Your task to perform on an android device: Search for custom wallets on etsy. Image 0: 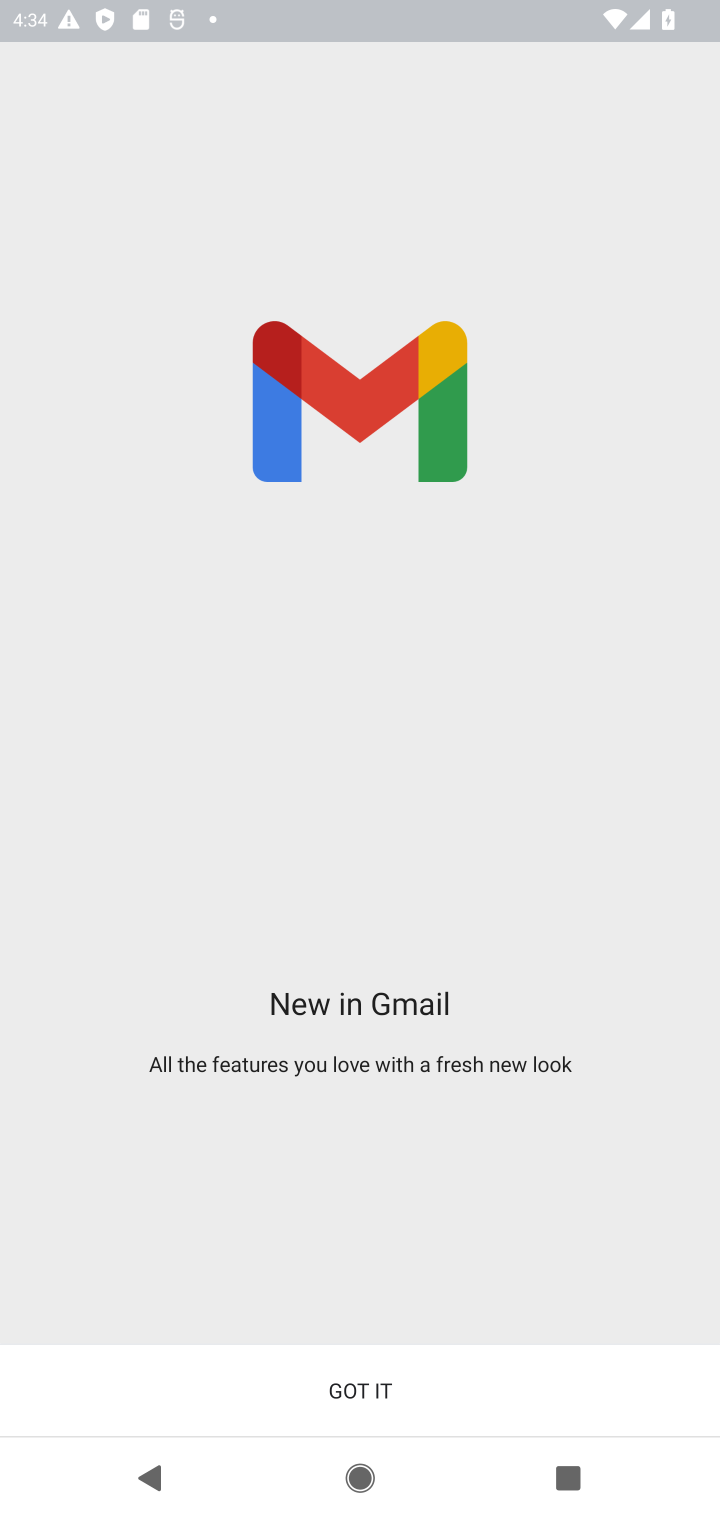
Step 0: press home button
Your task to perform on an android device: Search for custom wallets on etsy. Image 1: 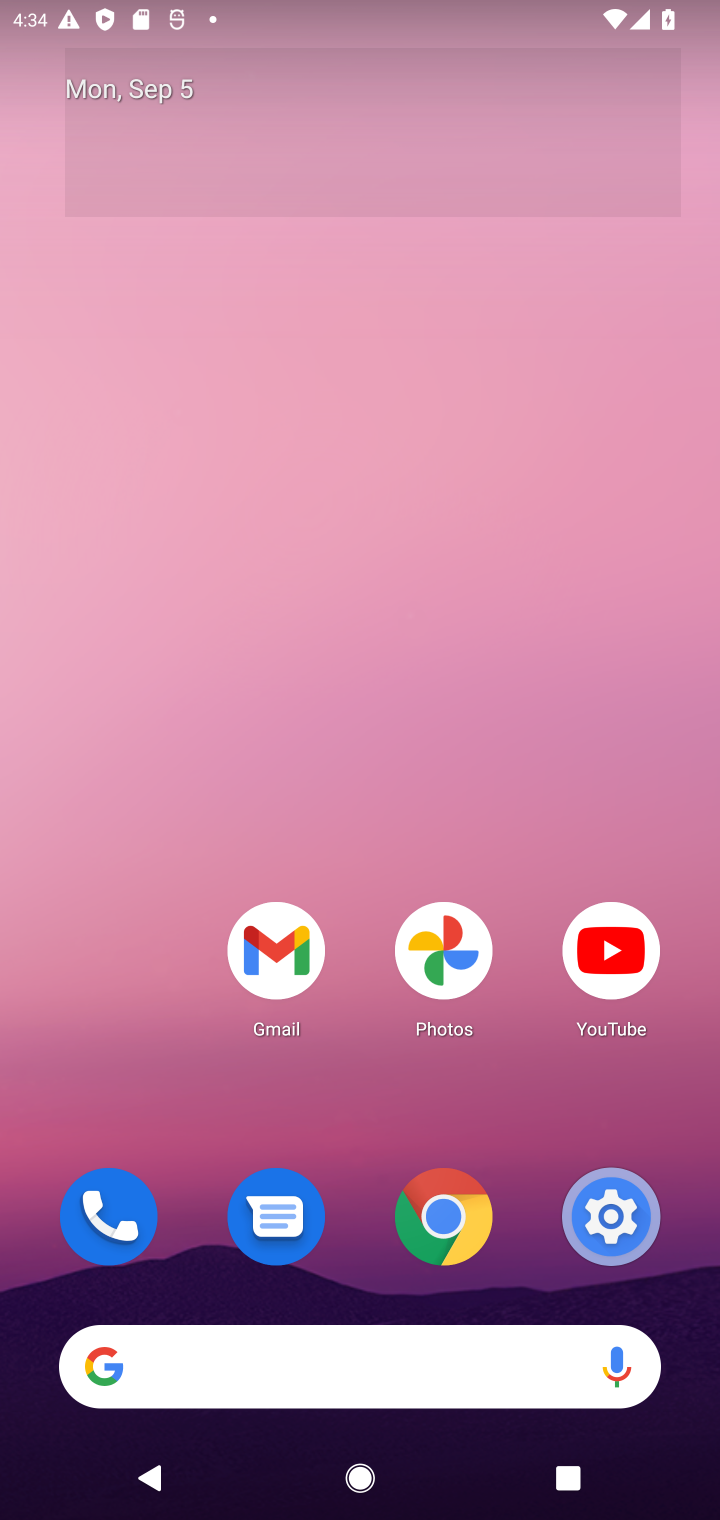
Step 1: click (90, 1364)
Your task to perform on an android device: Search for custom wallets on etsy. Image 2: 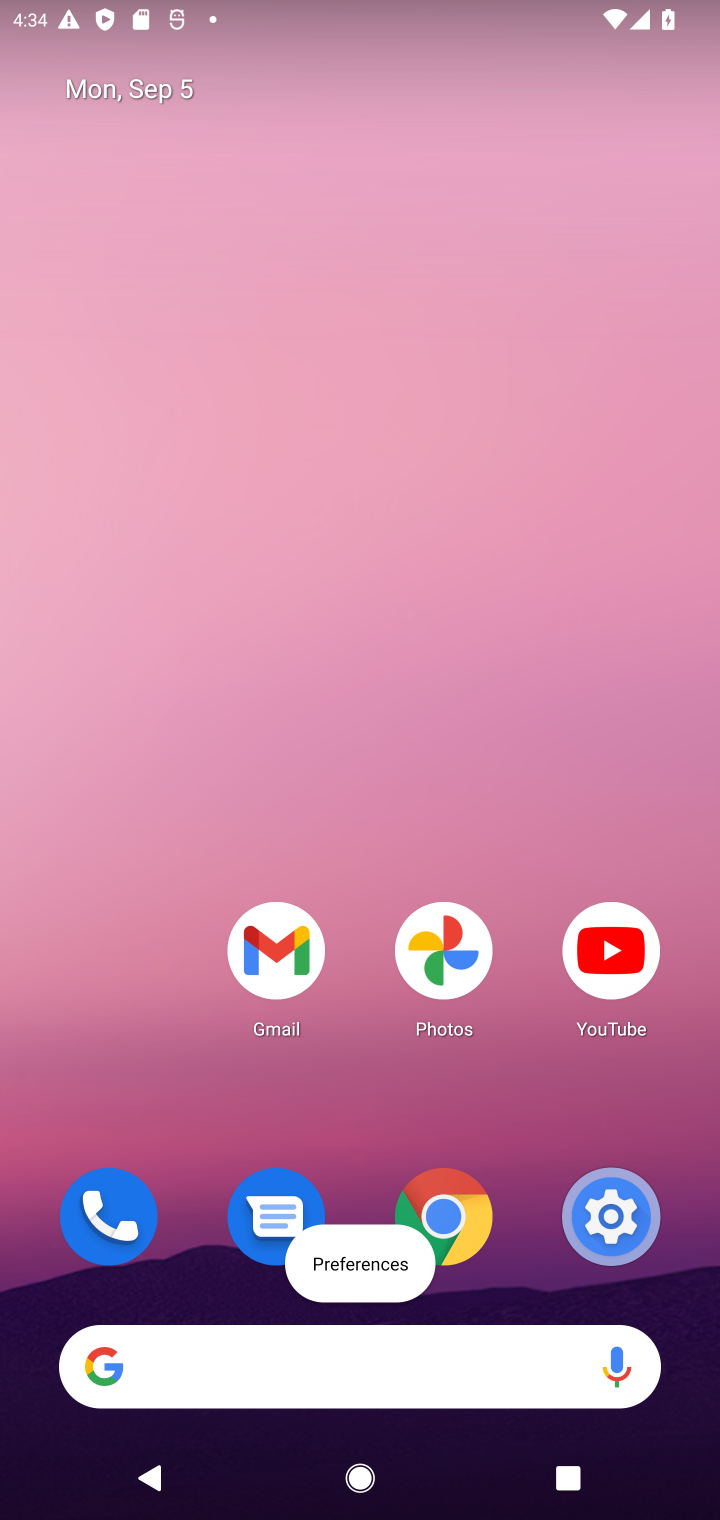
Step 2: click (99, 1350)
Your task to perform on an android device: Search for custom wallets on etsy. Image 3: 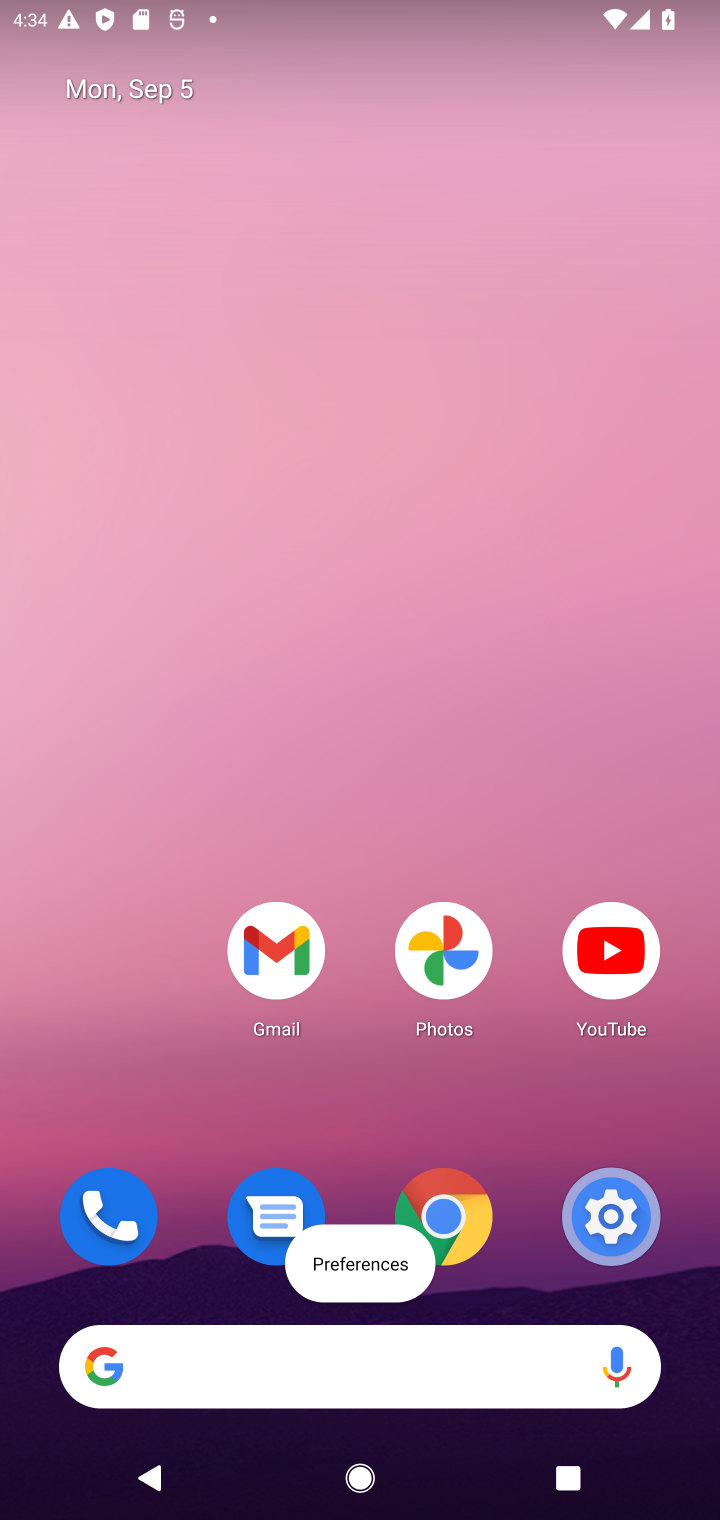
Step 3: click (108, 1378)
Your task to perform on an android device: Search for custom wallets on etsy. Image 4: 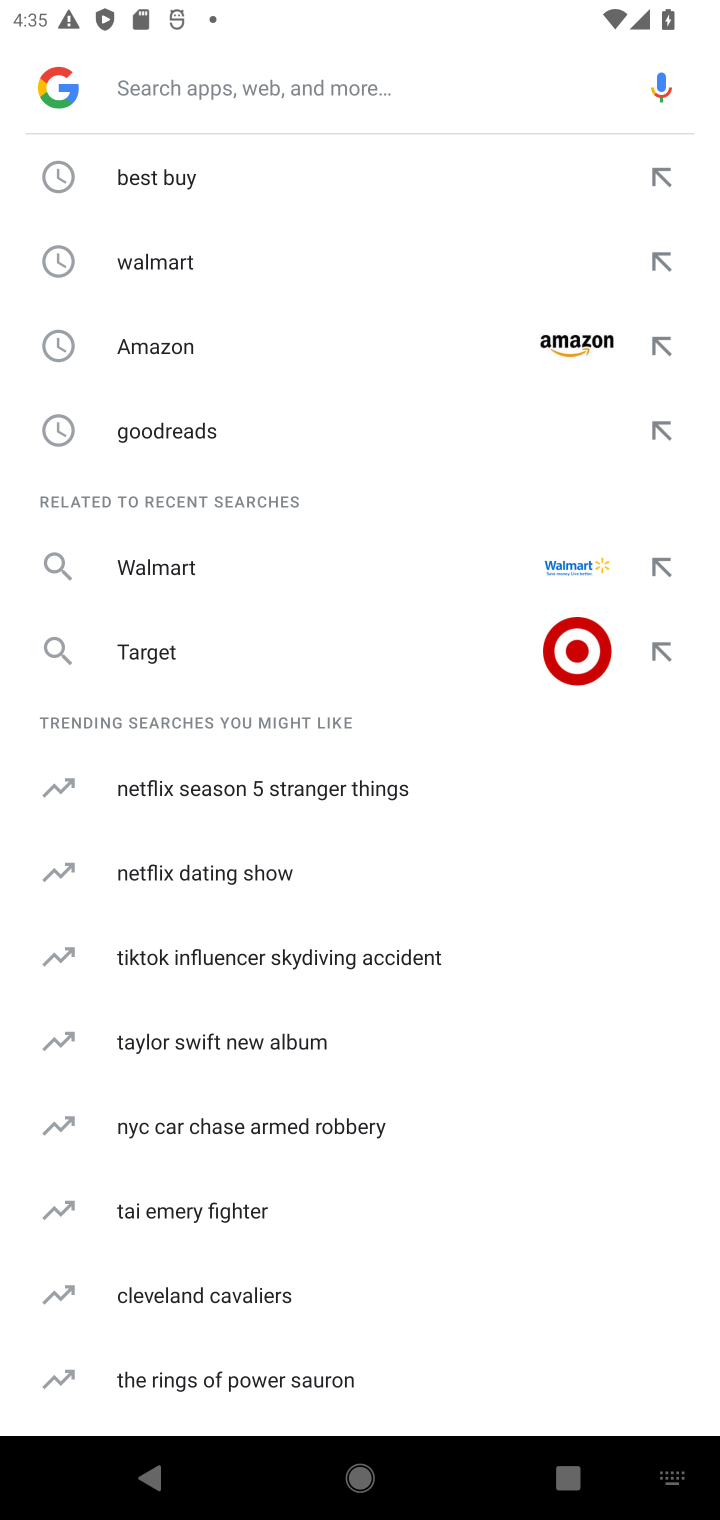
Step 4: type "etsy"
Your task to perform on an android device: Search for custom wallets on etsy. Image 5: 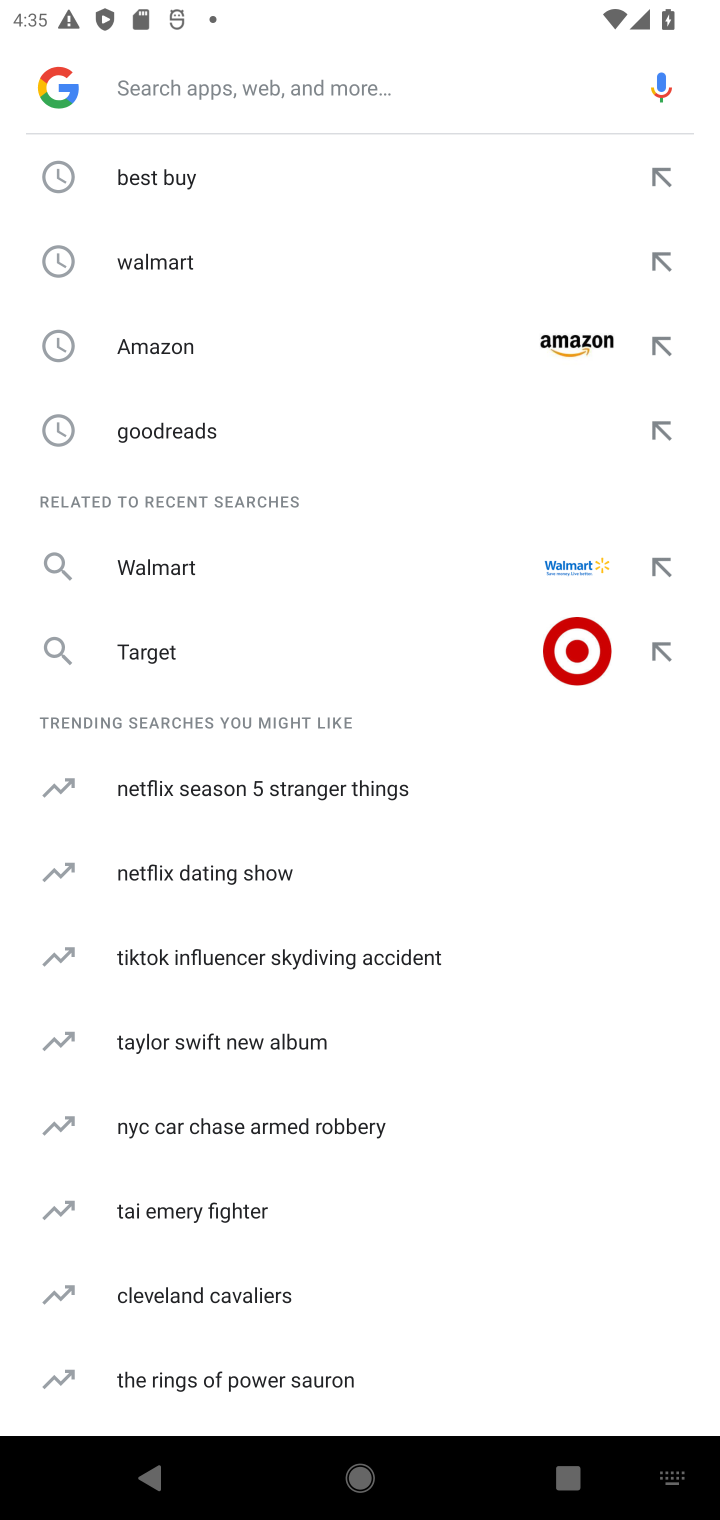
Step 5: click (163, 91)
Your task to perform on an android device: Search for custom wallets on etsy. Image 6: 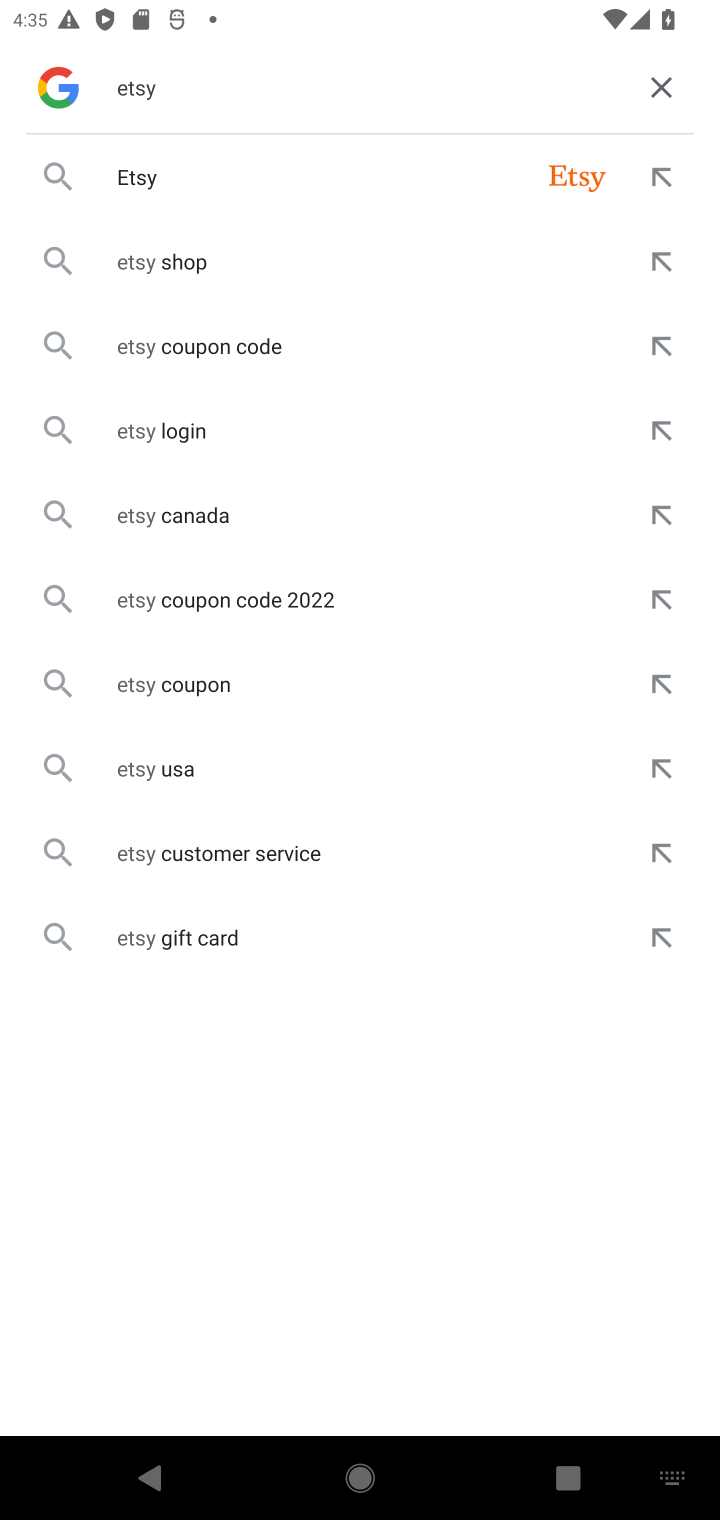
Step 6: press enter
Your task to perform on an android device: Search for custom wallets on etsy. Image 7: 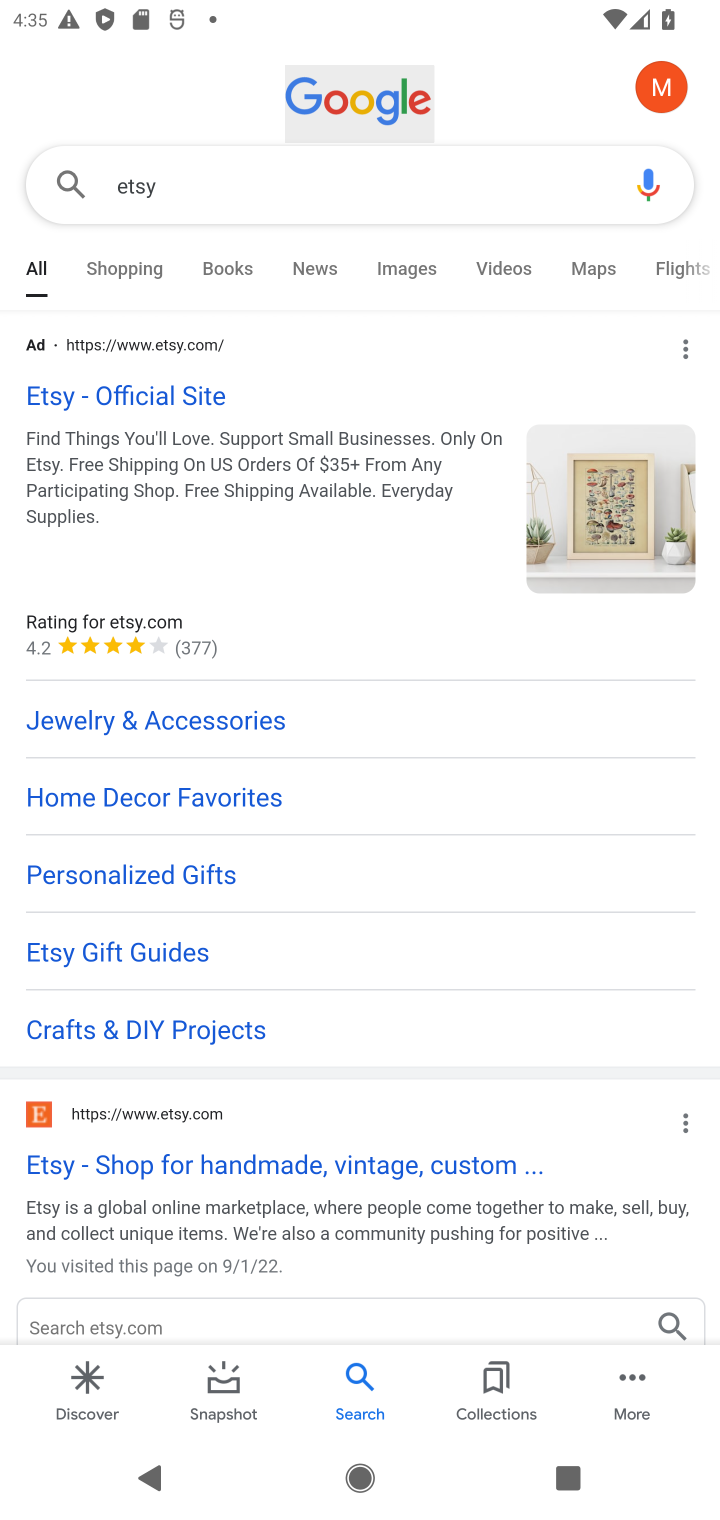
Step 7: click (171, 1115)
Your task to perform on an android device: Search for custom wallets on etsy. Image 8: 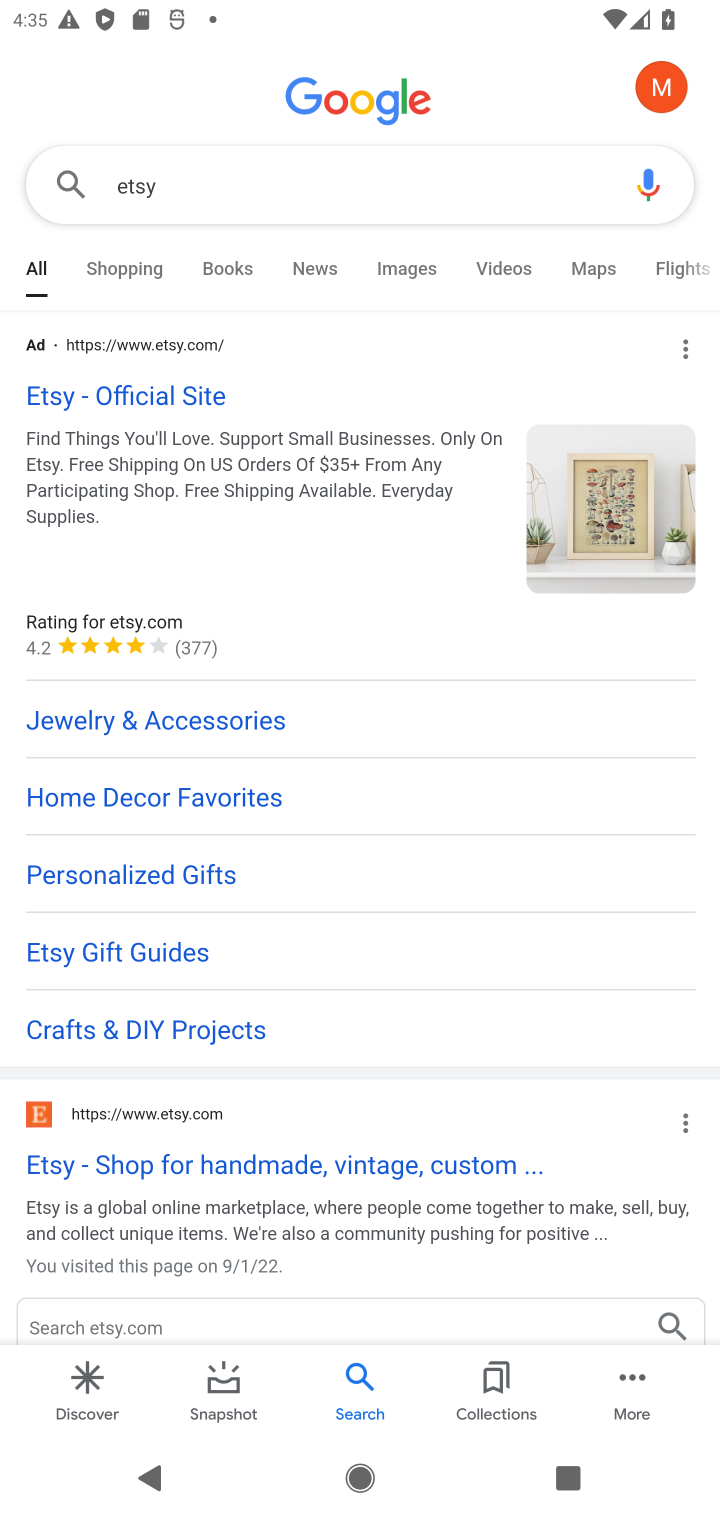
Step 8: click (223, 1153)
Your task to perform on an android device: Search for custom wallets on etsy. Image 9: 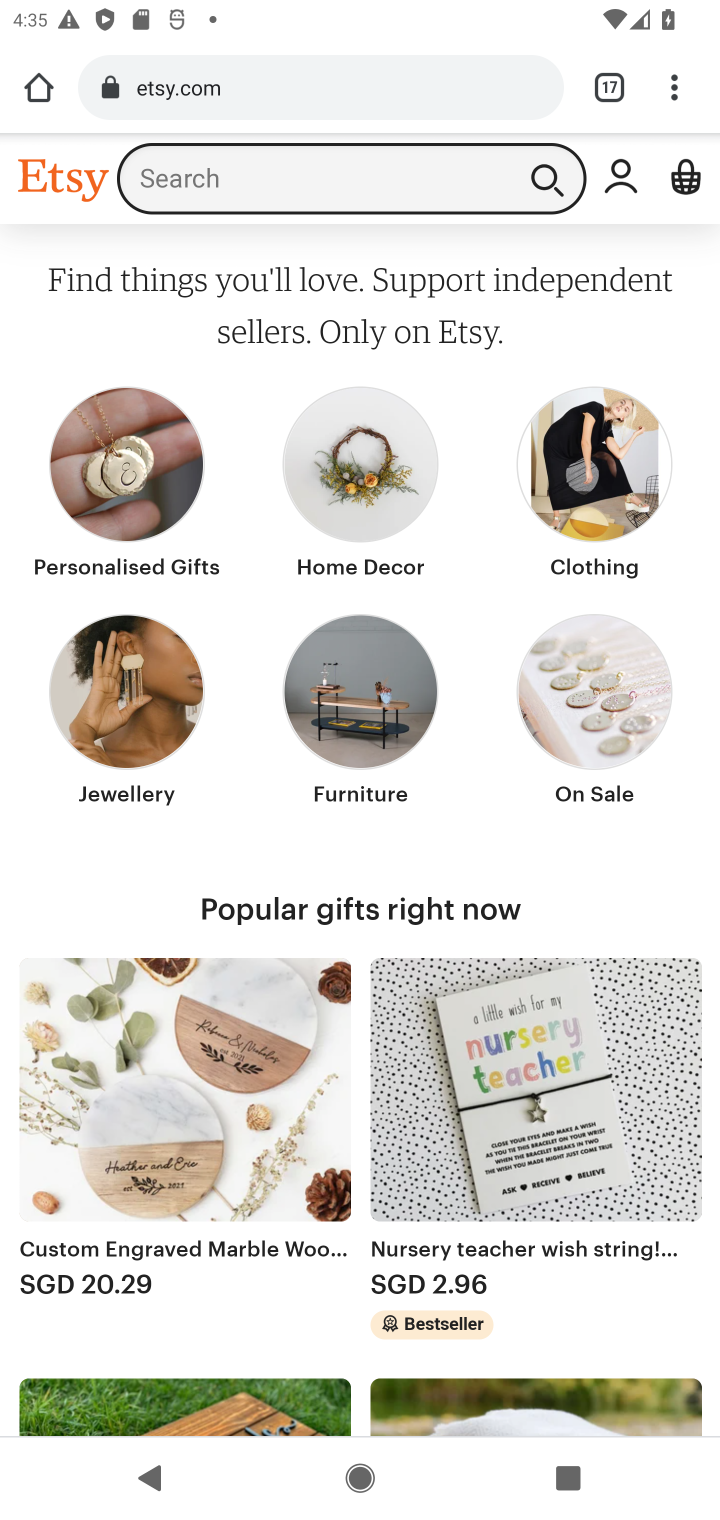
Step 9: click (202, 174)
Your task to perform on an android device: Search for custom wallets on etsy. Image 10: 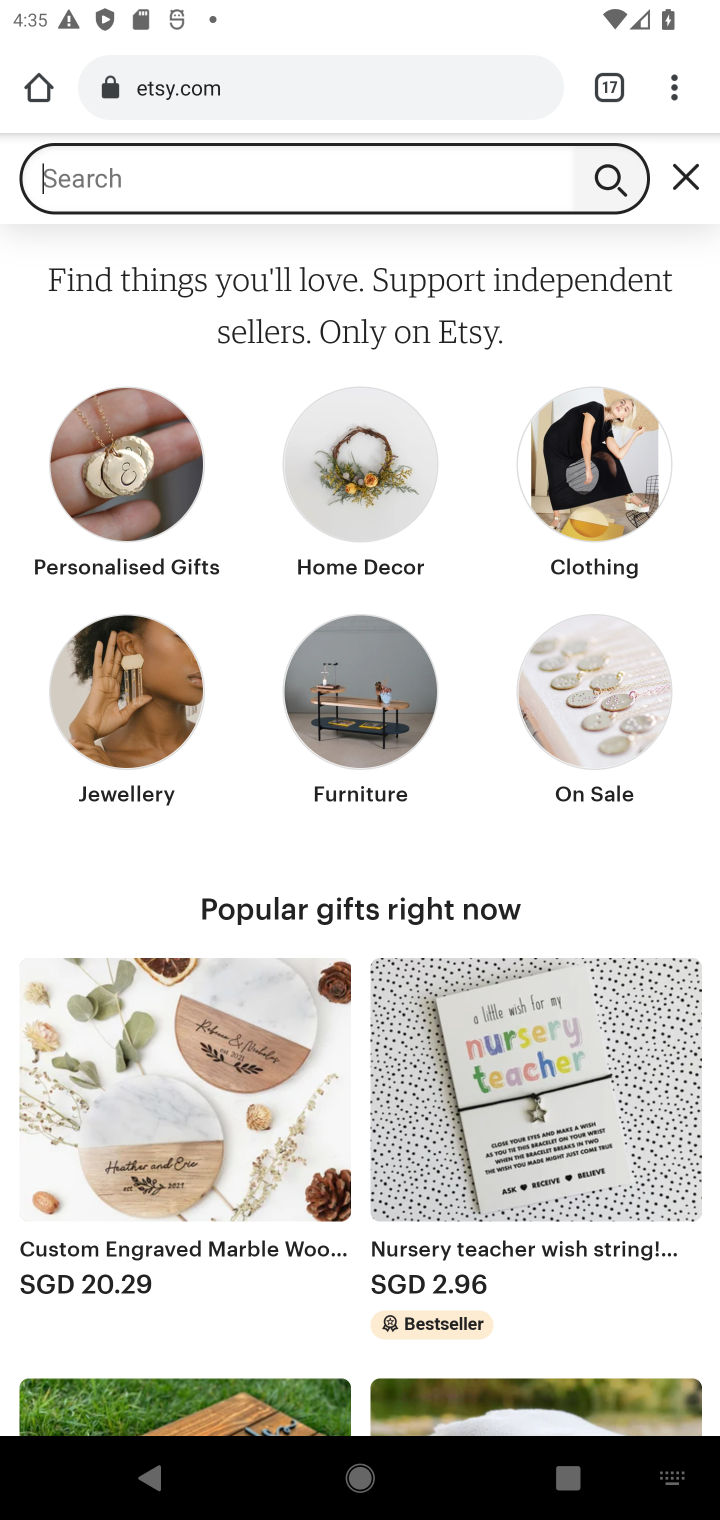
Step 10: type "custom wallets"
Your task to perform on an android device: Search for custom wallets on etsy. Image 11: 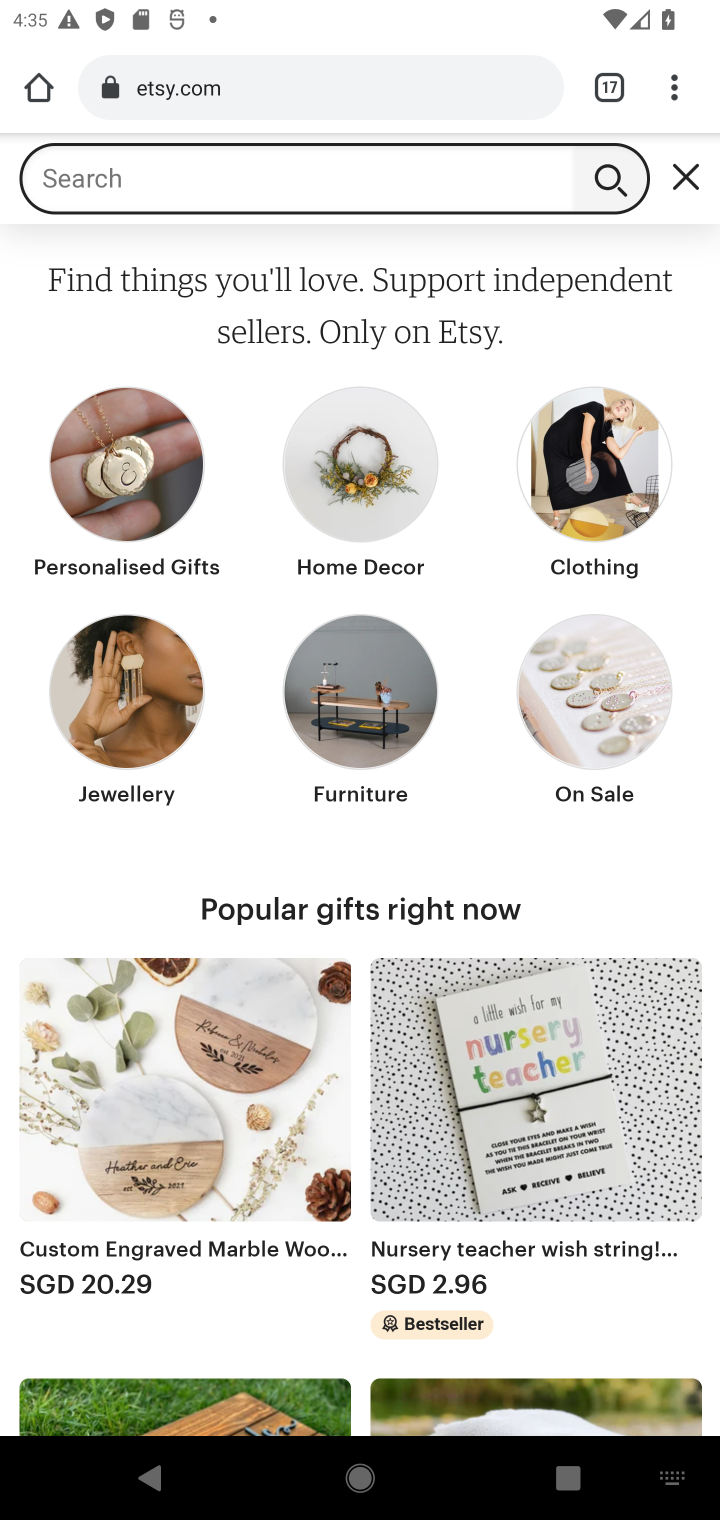
Step 11: click (227, 192)
Your task to perform on an android device: Search for custom wallets on etsy. Image 12: 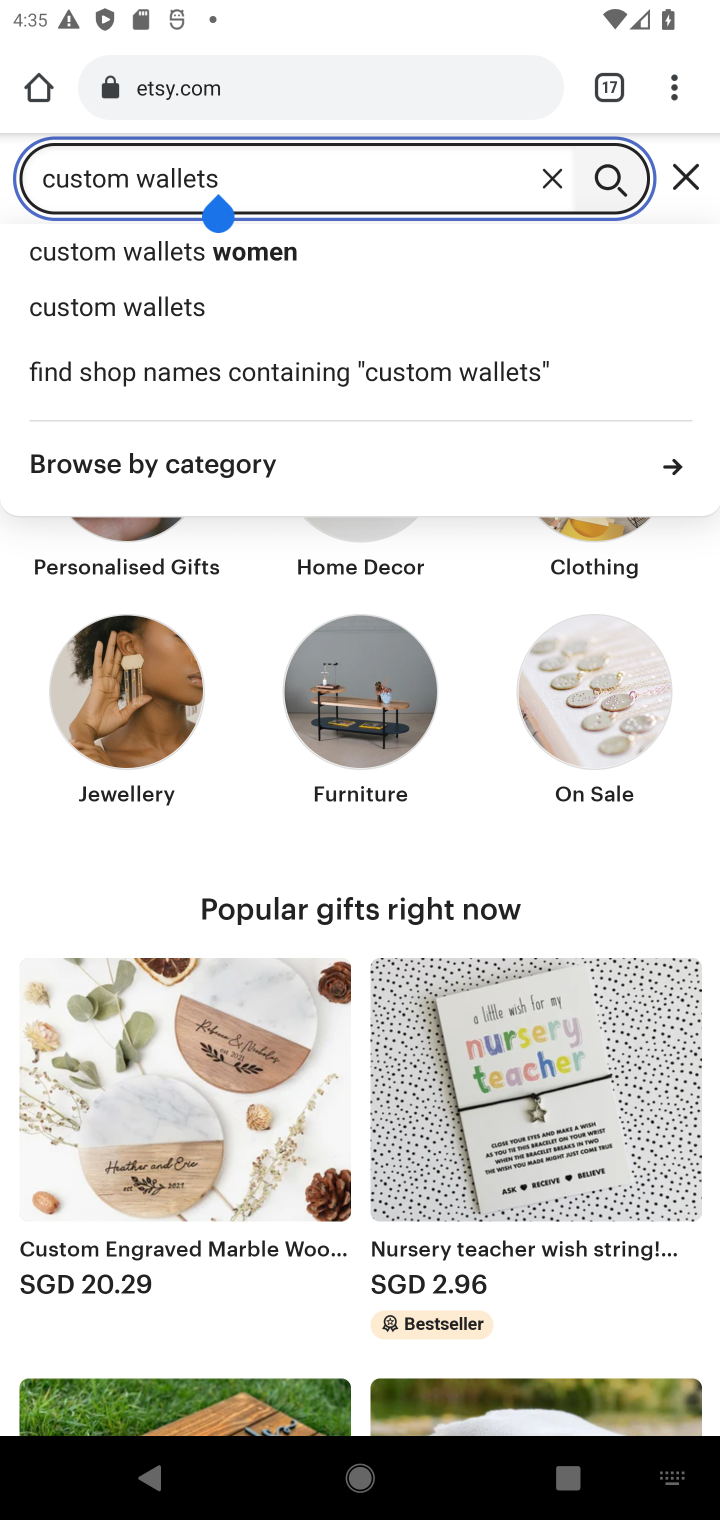
Step 12: press enter
Your task to perform on an android device: Search for custom wallets on etsy. Image 13: 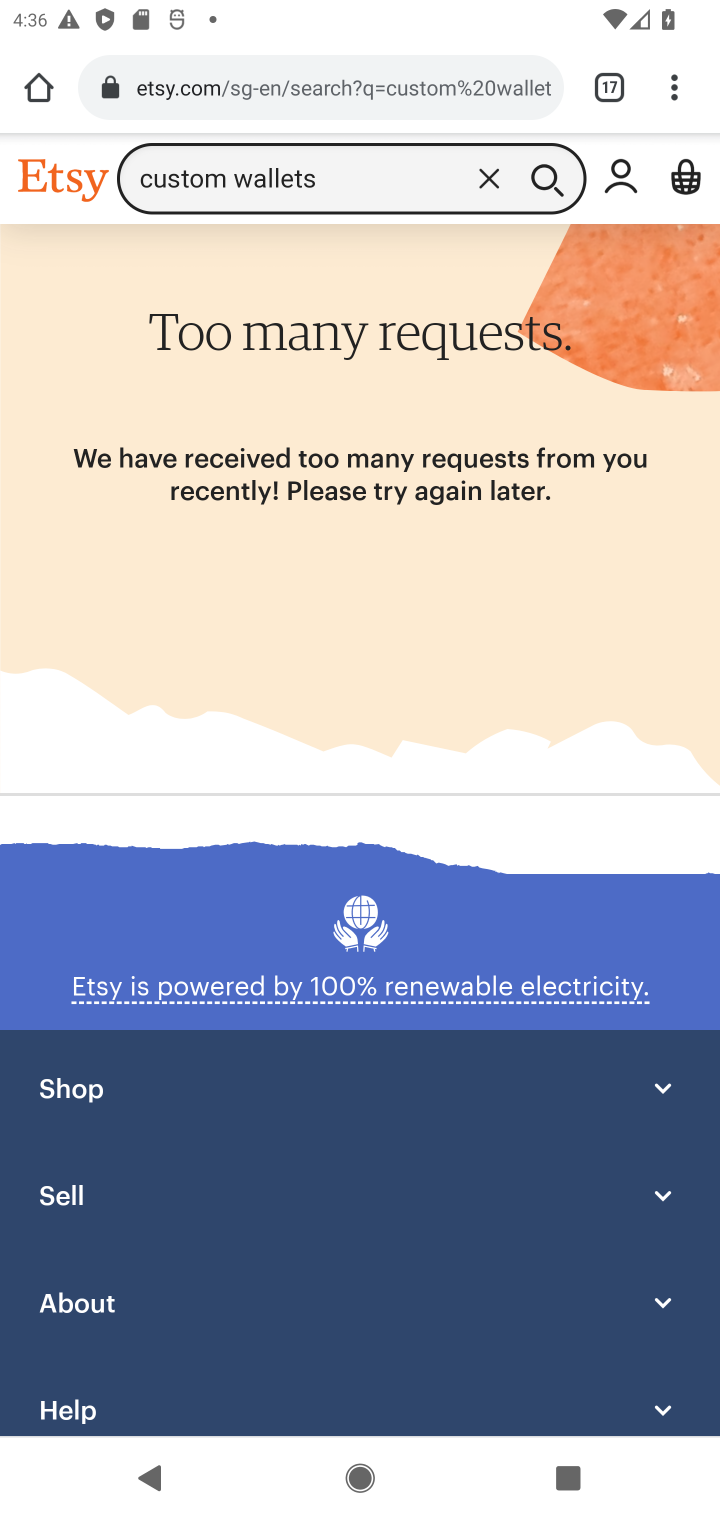
Step 13: click (333, 186)
Your task to perform on an android device: Search for custom wallets on etsy. Image 14: 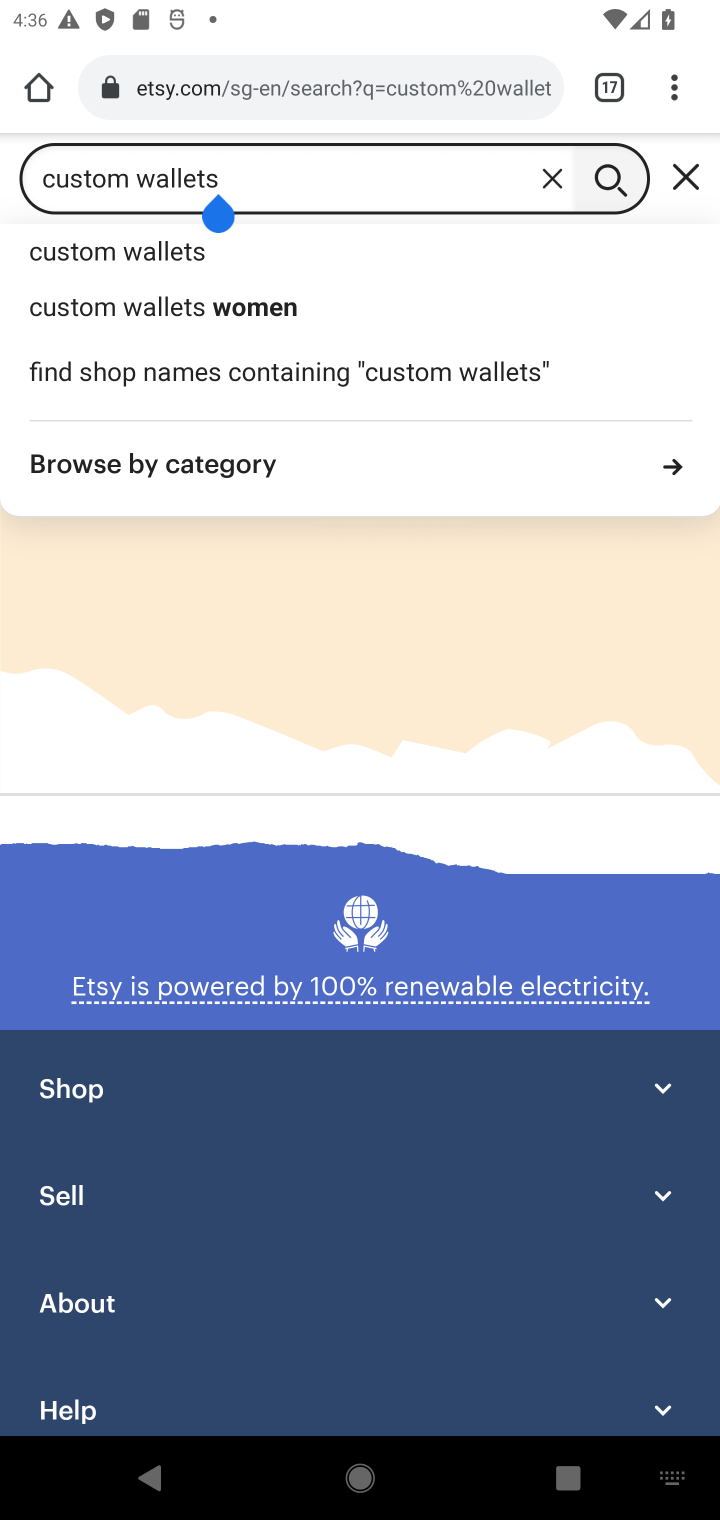
Step 14: press enter
Your task to perform on an android device: Search for custom wallets on etsy. Image 15: 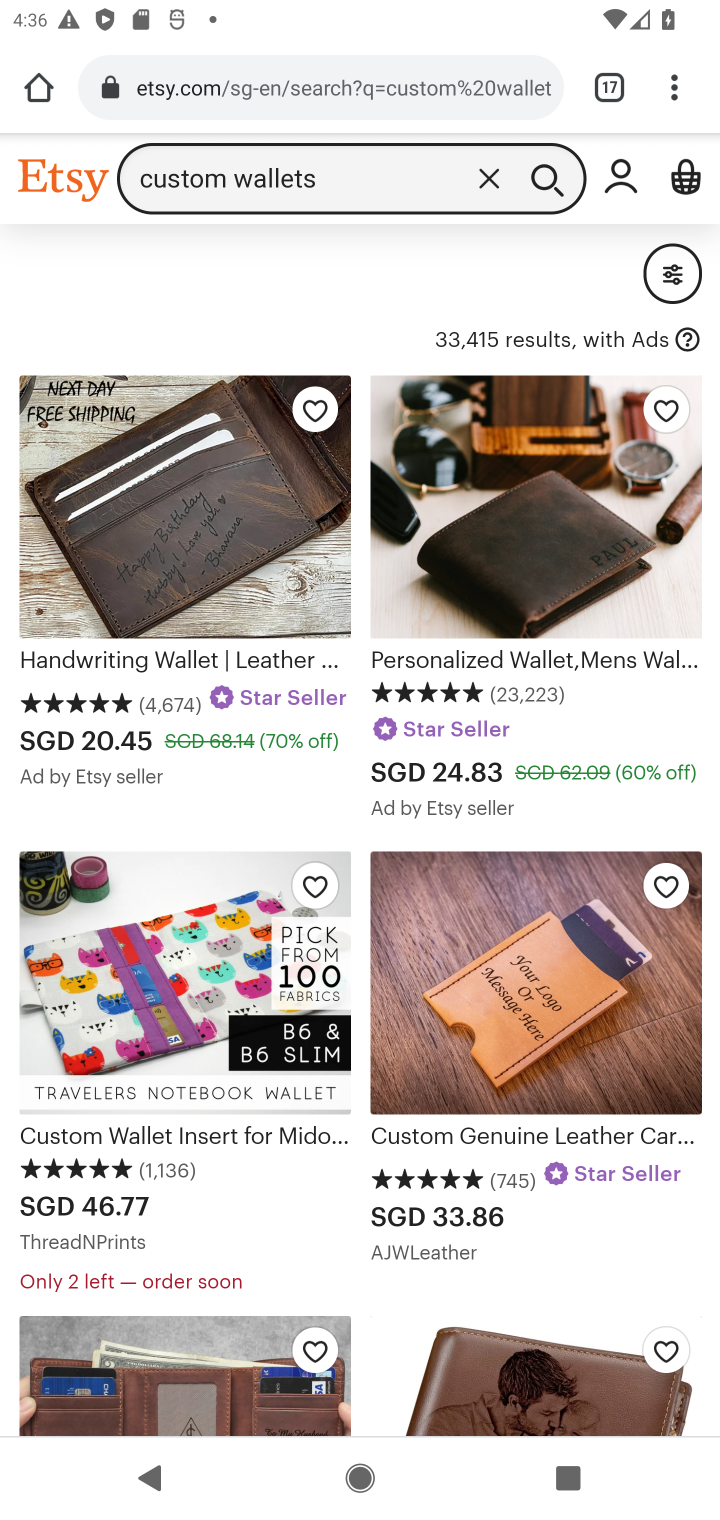
Step 15: task complete